Your task to perform on an android device: turn on data saver in the chrome app Image 0: 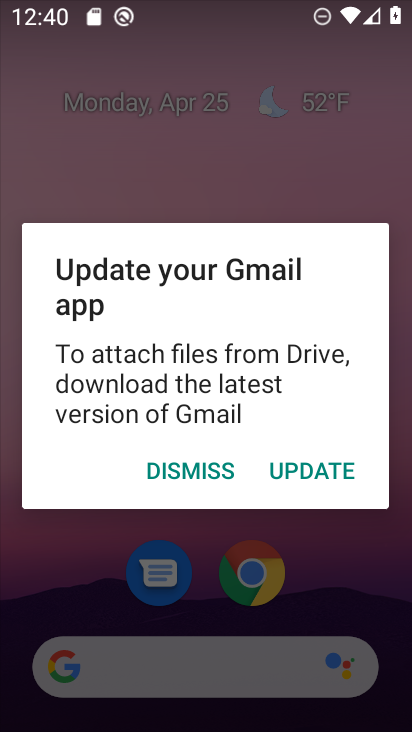
Step 0: press home button
Your task to perform on an android device: turn on data saver in the chrome app Image 1: 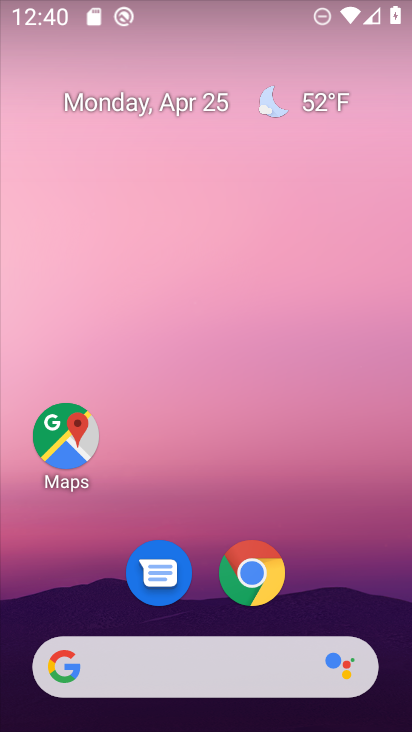
Step 1: click (244, 571)
Your task to perform on an android device: turn on data saver in the chrome app Image 2: 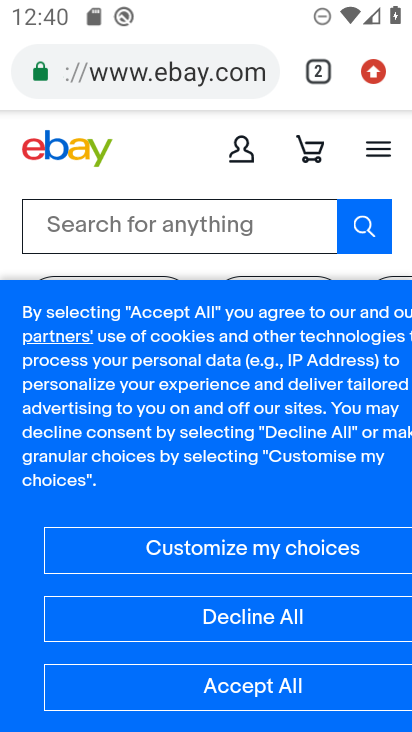
Step 2: drag from (371, 73) to (134, 564)
Your task to perform on an android device: turn on data saver in the chrome app Image 3: 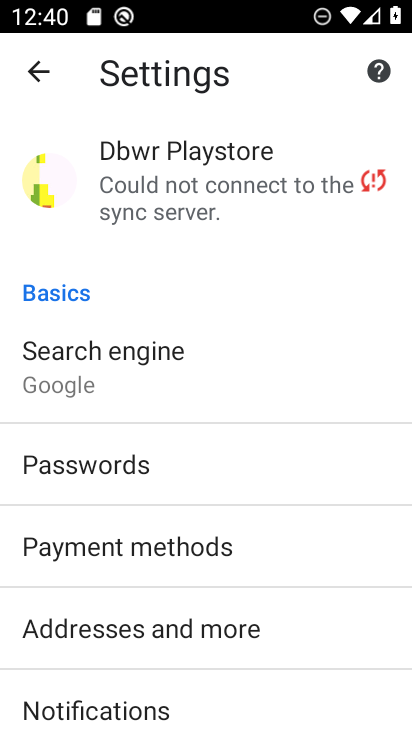
Step 3: drag from (171, 668) to (193, 236)
Your task to perform on an android device: turn on data saver in the chrome app Image 4: 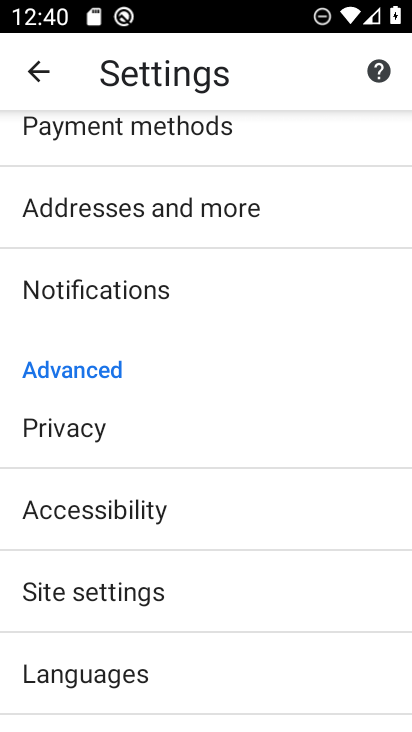
Step 4: drag from (185, 685) to (234, 302)
Your task to perform on an android device: turn on data saver in the chrome app Image 5: 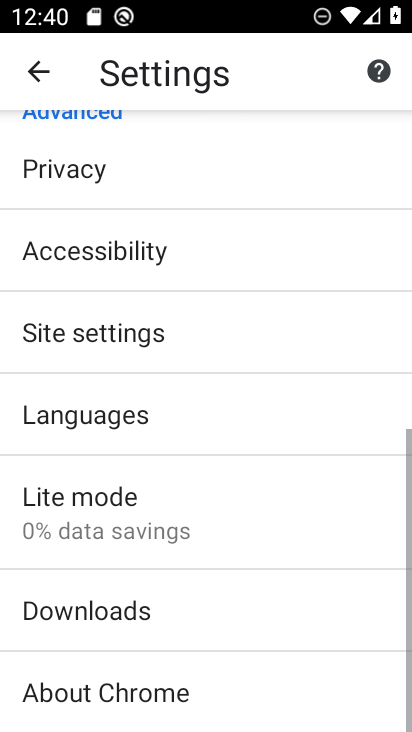
Step 5: click (92, 495)
Your task to perform on an android device: turn on data saver in the chrome app Image 6: 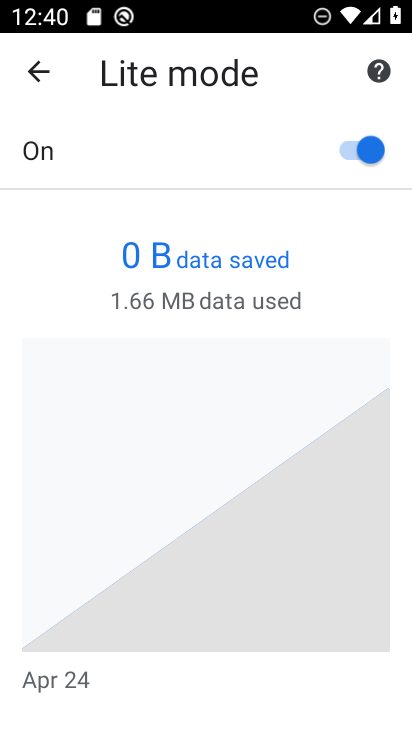
Step 6: task complete